Your task to perform on an android device: check the backup settings in the google photos Image 0: 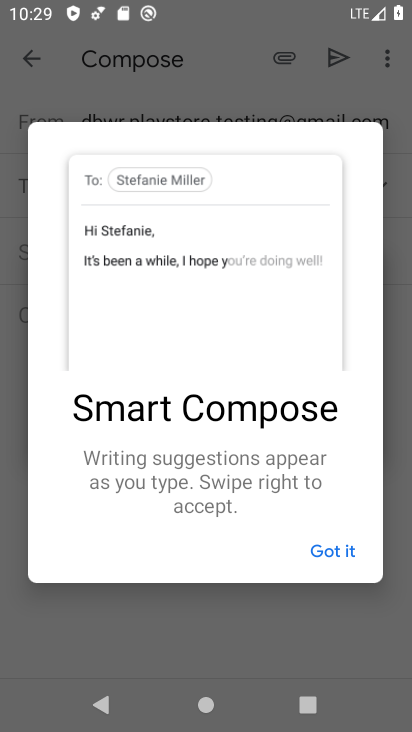
Step 0: press home button
Your task to perform on an android device: check the backup settings in the google photos Image 1: 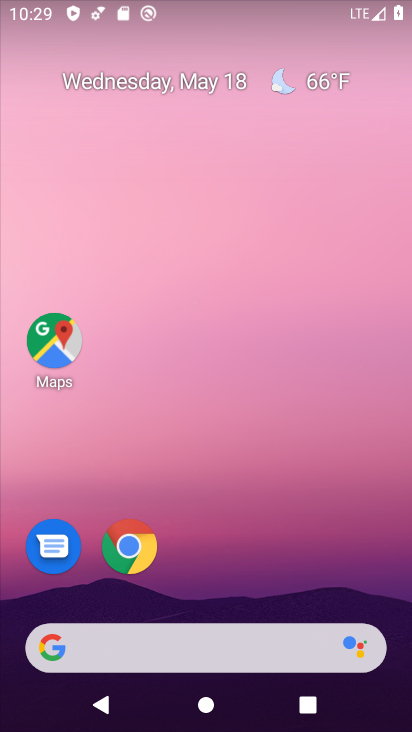
Step 1: drag from (236, 725) to (234, 182)
Your task to perform on an android device: check the backup settings in the google photos Image 2: 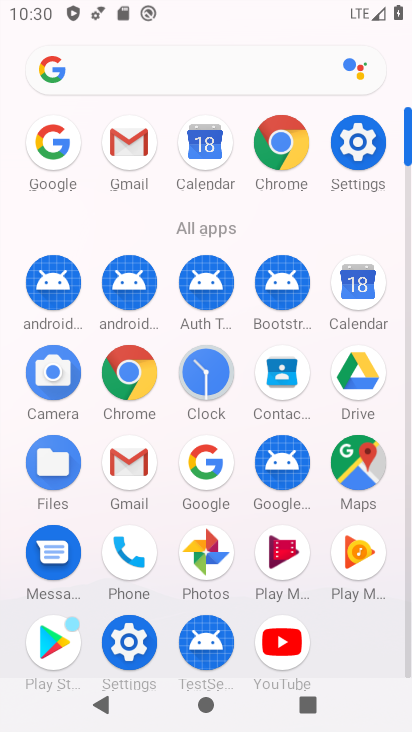
Step 2: click (208, 551)
Your task to perform on an android device: check the backup settings in the google photos Image 3: 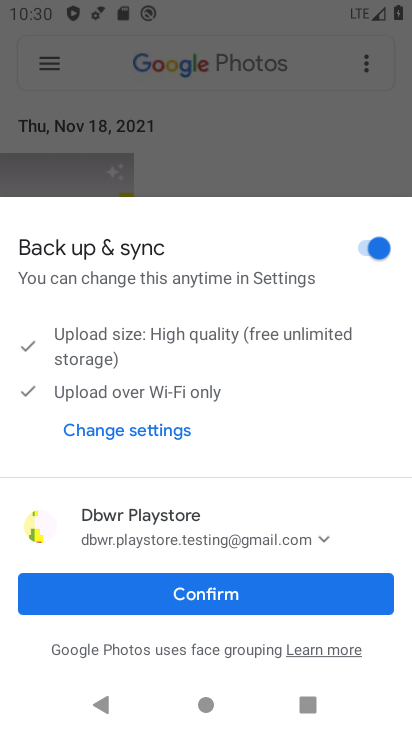
Step 3: click (208, 590)
Your task to perform on an android device: check the backup settings in the google photos Image 4: 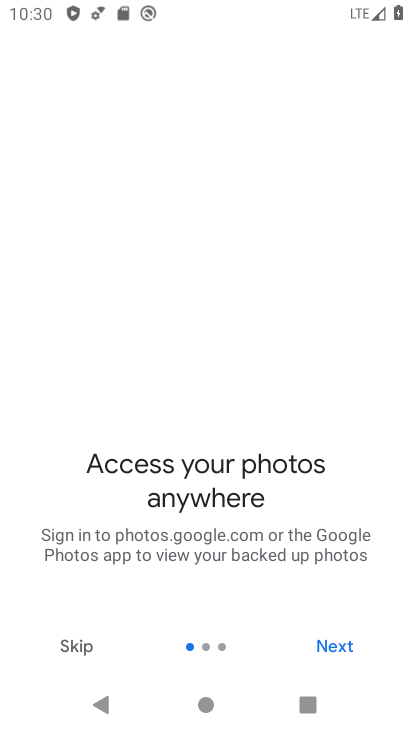
Step 4: click (339, 645)
Your task to perform on an android device: check the backup settings in the google photos Image 5: 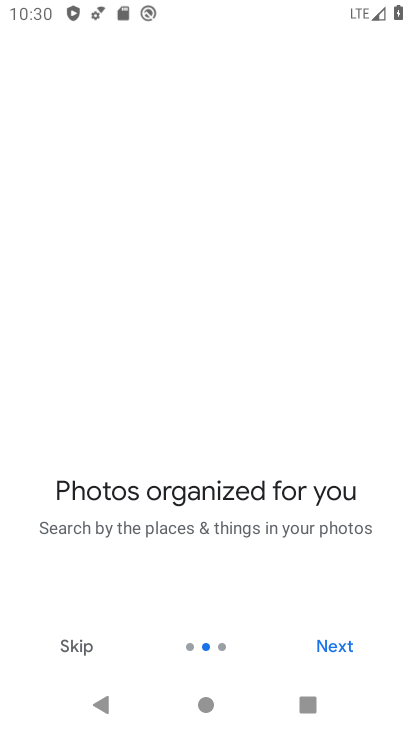
Step 5: click (339, 645)
Your task to perform on an android device: check the backup settings in the google photos Image 6: 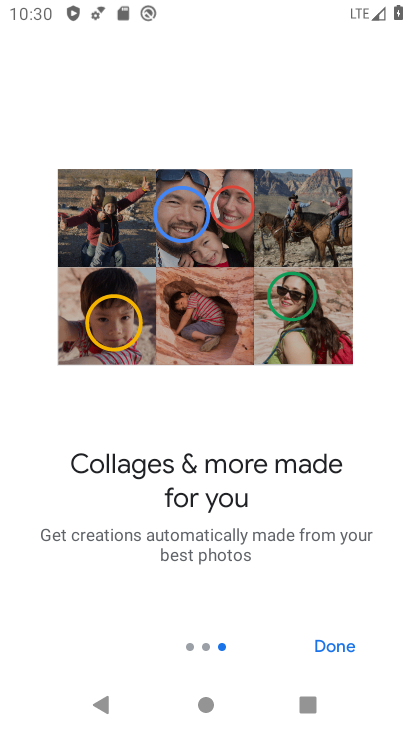
Step 6: click (339, 645)
Your task to perform on an android device: check the backup settings in the google photos Image 7: 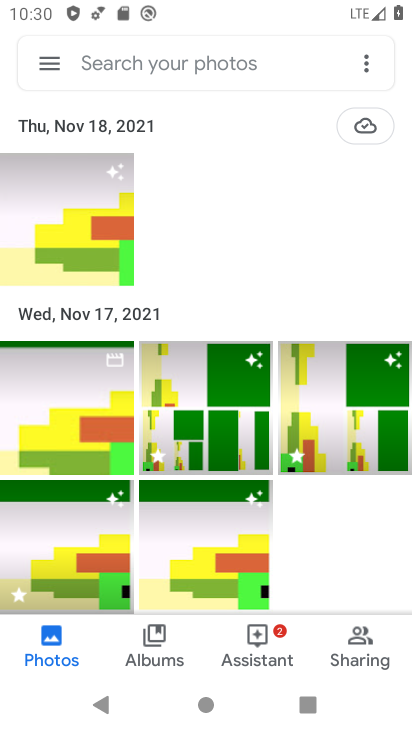
Step 7: click (46, 56)
Your task to perform on an android device: check the backup settings in the google photos Image 8: 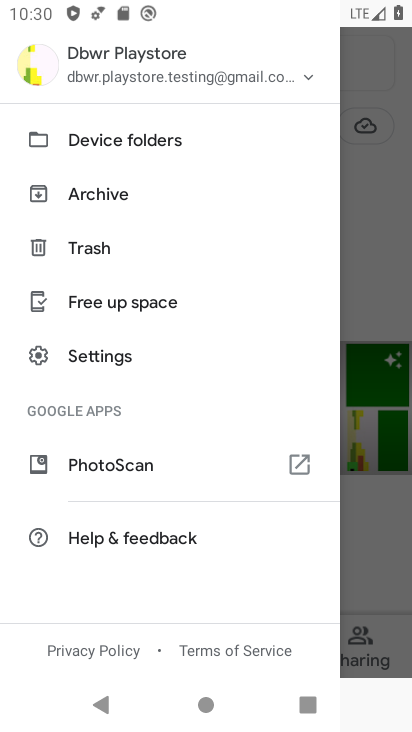
Step 8: click (94, 355)
Your task to perform on an android device: check the backup settings in the google photos Image 9: 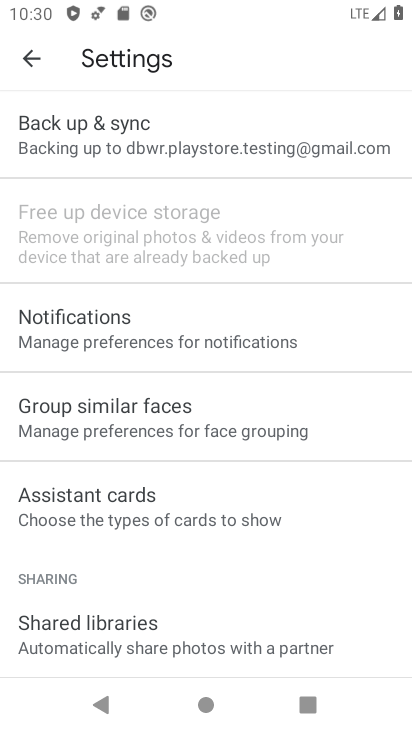
Step 9: click (49, 125)
Your task to perform on an android device: check the backup settings in the google photos Image 10: 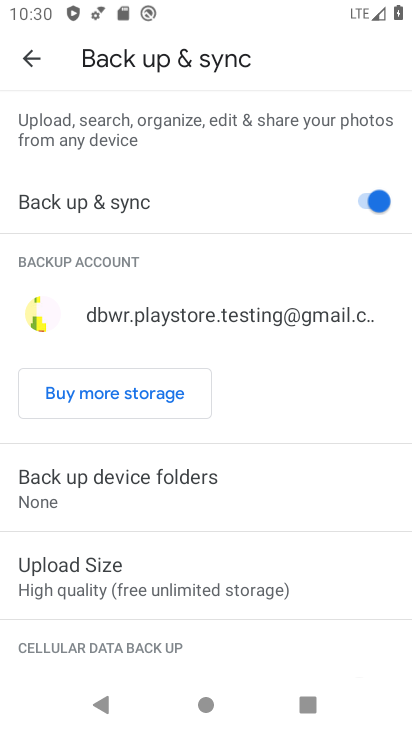
Step 10: task complete